Your task to perform on an android device: open a new tab in the chrome app Image 0: 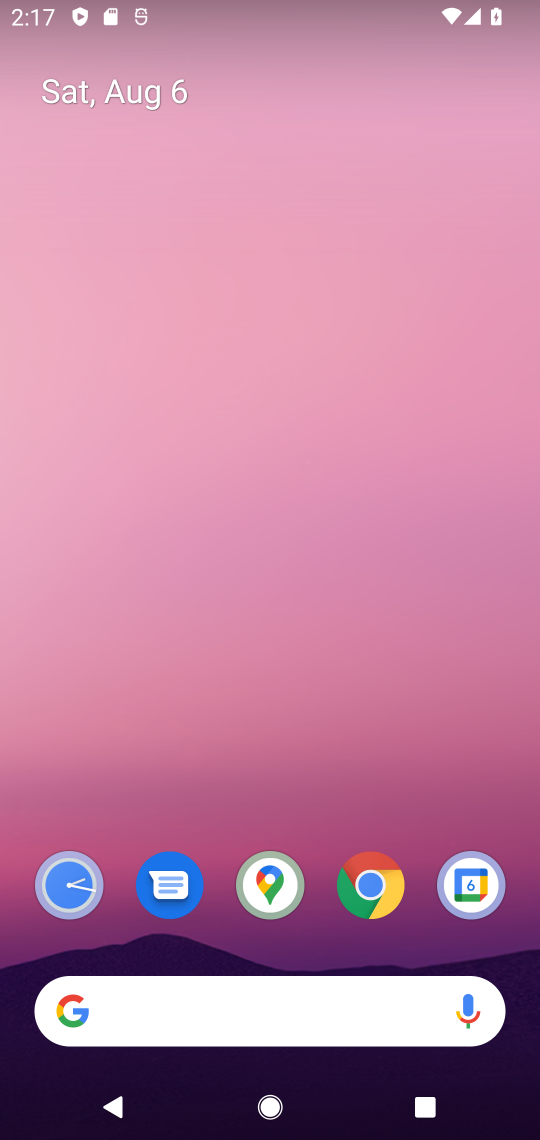
Step 0: drag from (531, 915) to (279, 70)
Your task to perform on an android device: open a new tab in the chrome app Image 1: 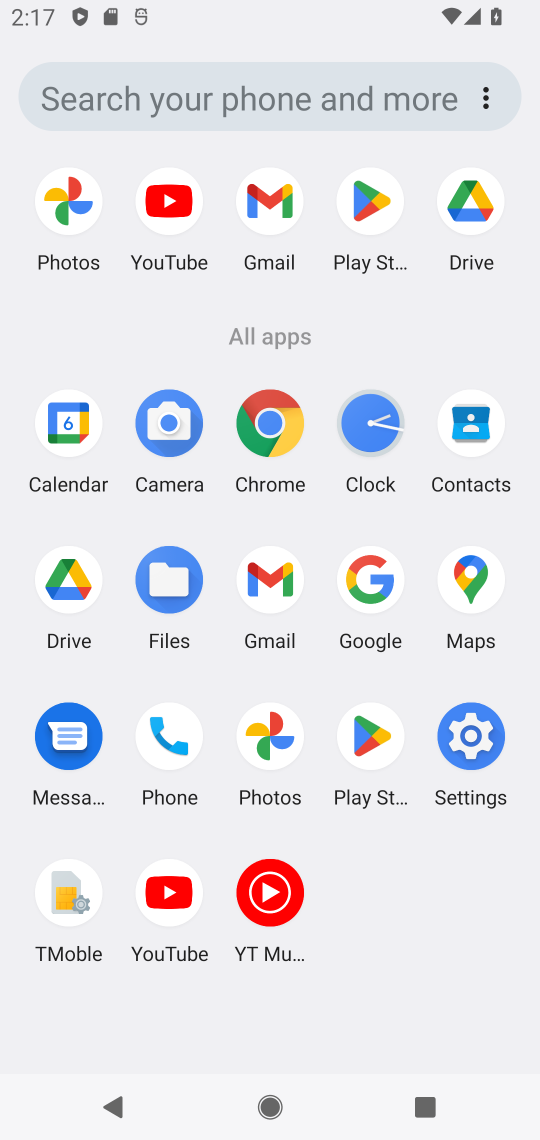
Step 1: click (254, 433)
Your task to perform on an android device: open a new tab in the chrome app Image 2: 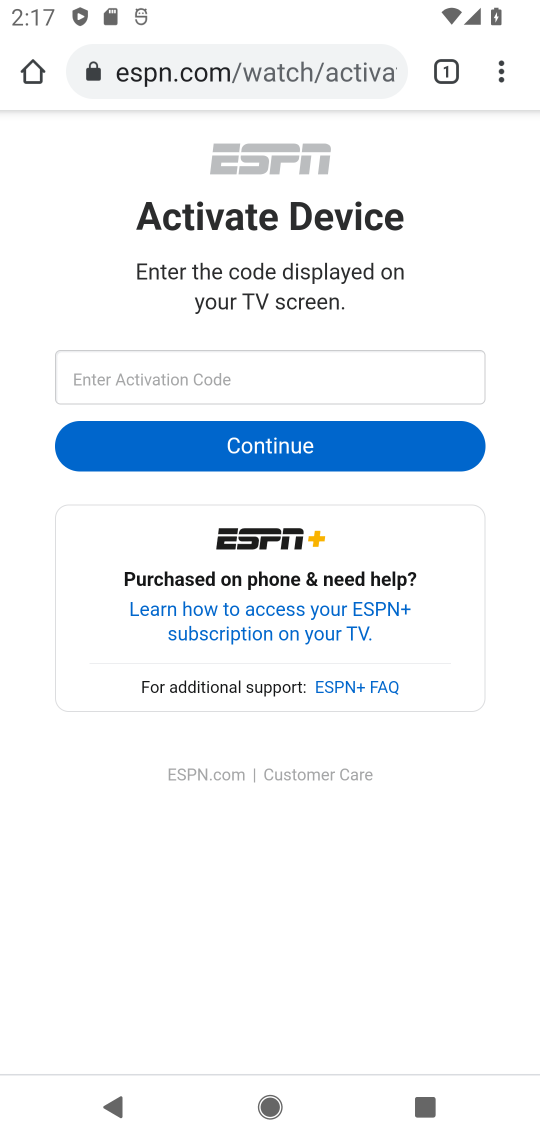
Step 2: press back button
Your task to perform on an android device: open a new tab in the chrome app Image 3: 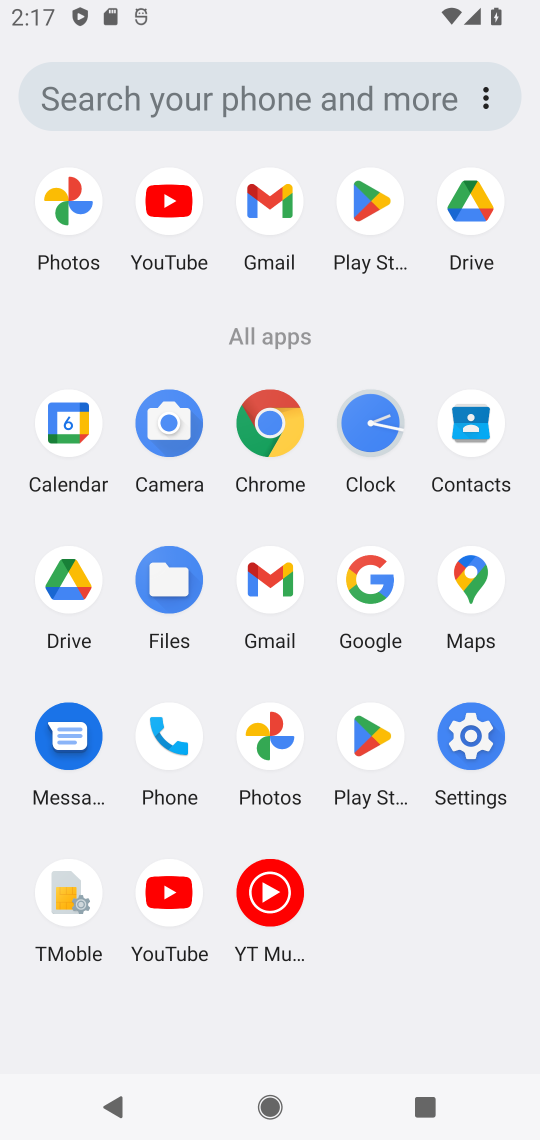
Step 3: click (279, 425)
Your task to perform on an android device: open a new tab in the chrome app Image 4: 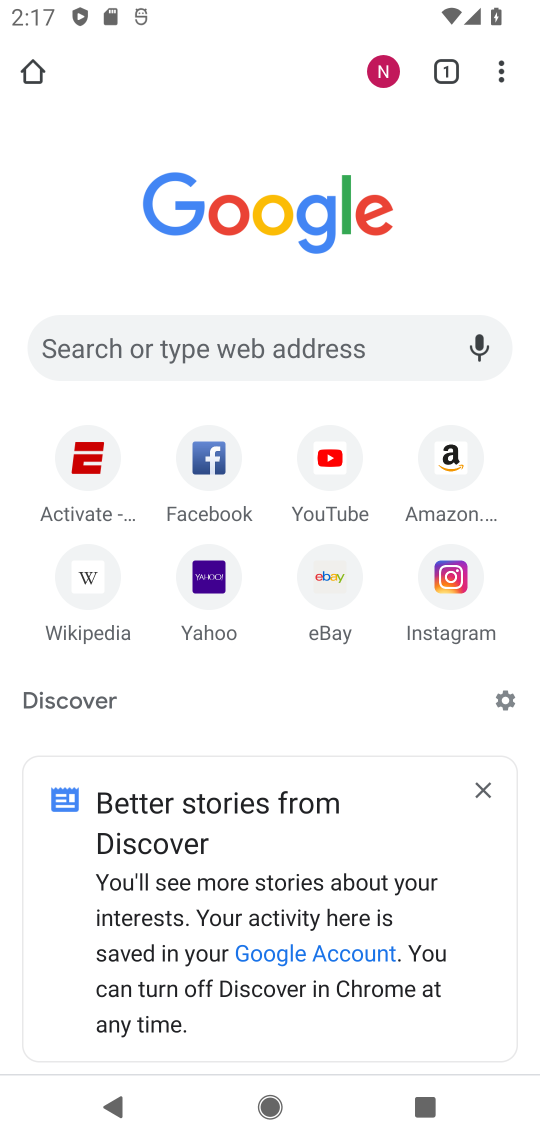
Step 4: click (500, 63)
Your task to perform on an android device: open a new tab in the chrome app Image 5: 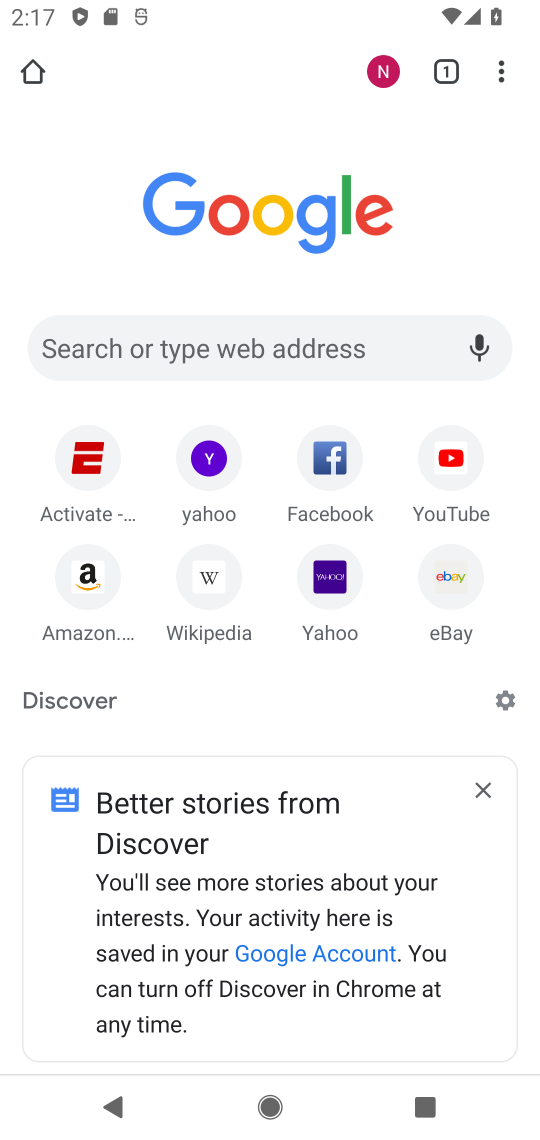
Step 5: click (500, 63)
Your task to perform on an android device: open a new tab in the chrome app Image 6: 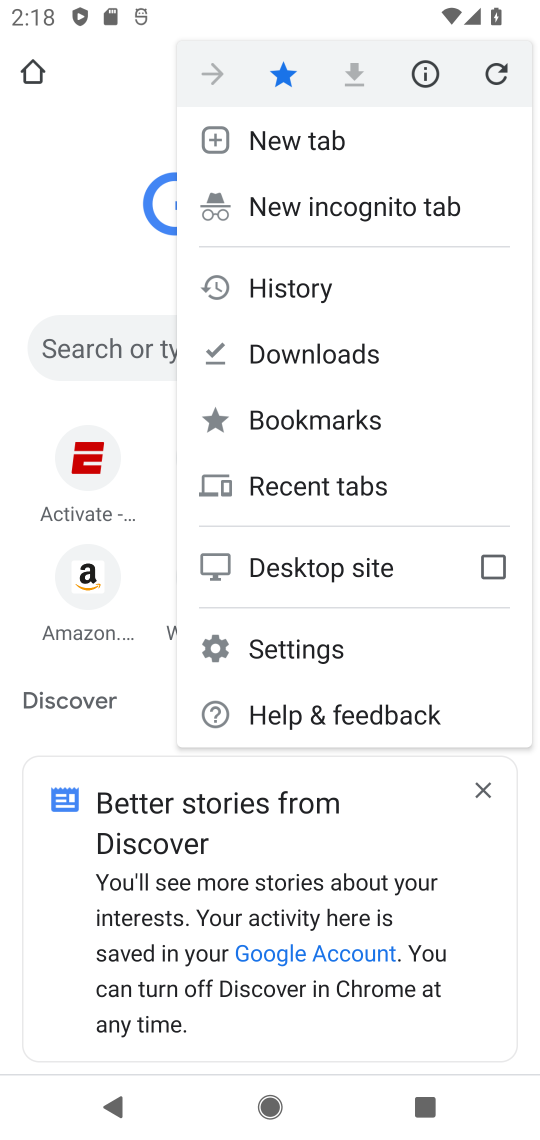
Step 6: click (338, 132)
Your task to perform on an android device: open a new tab in the chrome app Image 7: 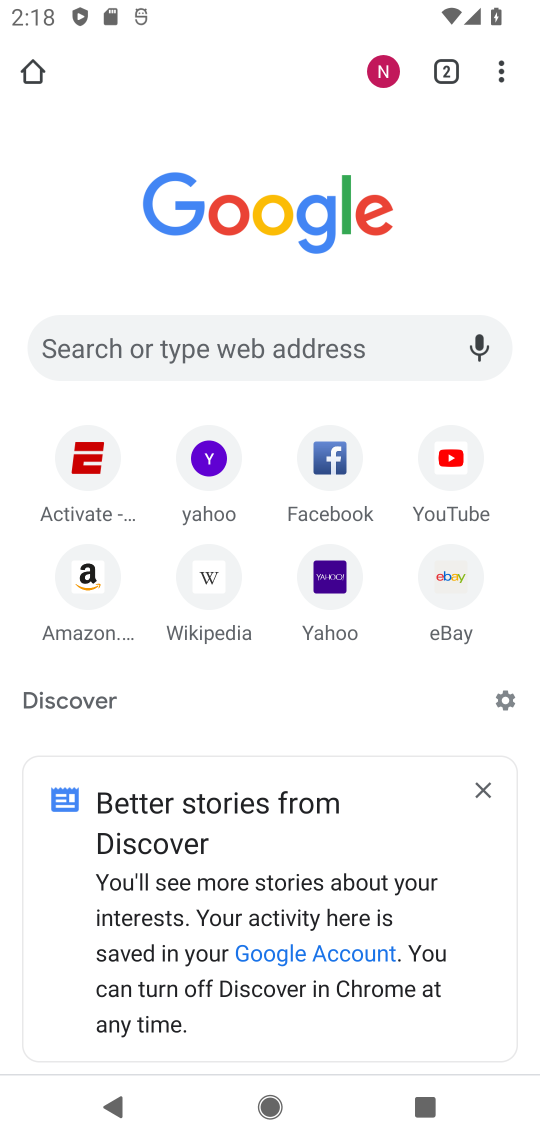
Step 7: task complete